Your task to perform on an android device: Show me the alarms in the clock app Image 0: 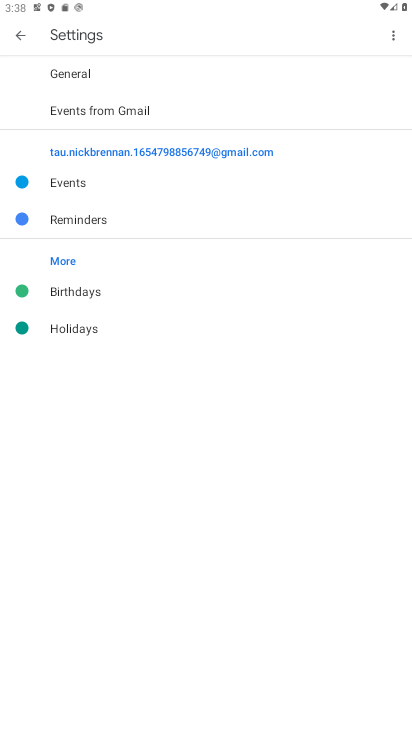
Step 0: press home button
Your task to perform on an android device: Show me the alarms in the clock app Image 1: 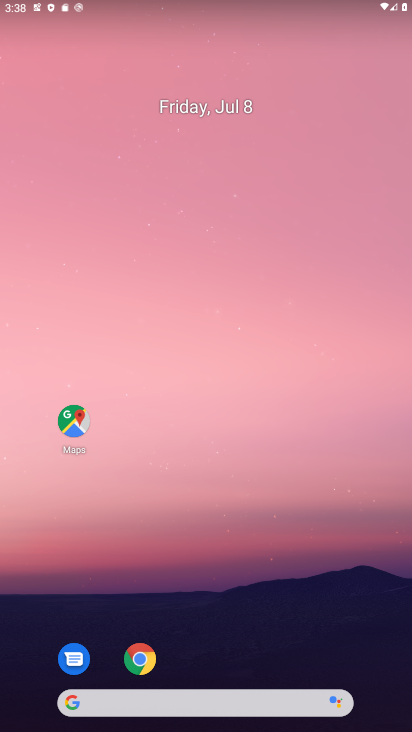
Step 1: drag from (229, 633) to (242, 140)
Your task to perform on an android device: Show me the alarms in the clock app Image 2: 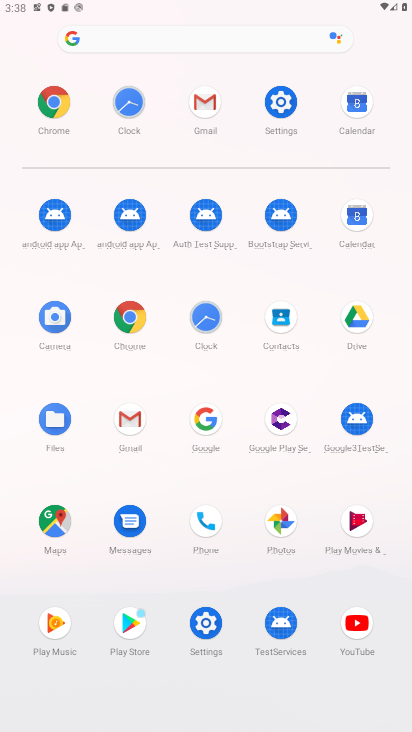
Step 2: click (221, 325)
Your task to perform on an android device: Show me the alarms in the clock app Image 3: 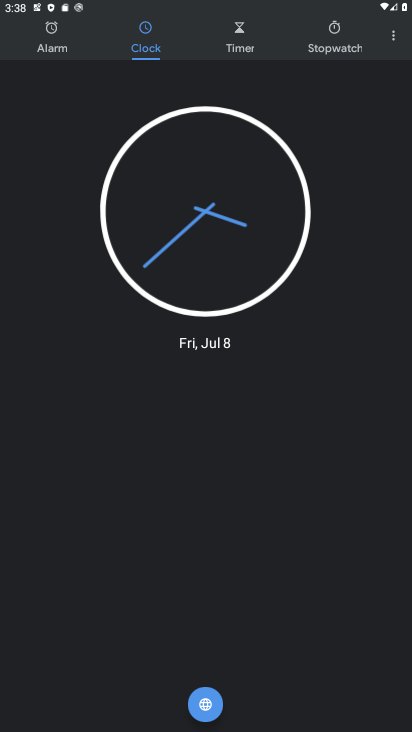
Step 3: click (52, 48)
Your task to perform on an android device: Show me the alarms in the clock app Image 4: 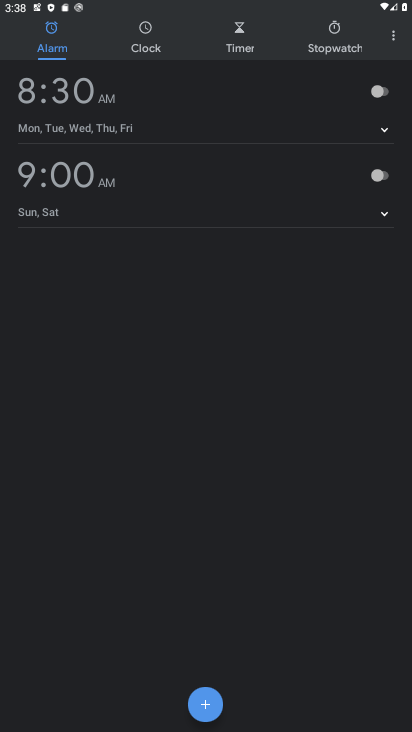
Step 4: task complete